Your task to perform on an android device: Open Wikipedia Image 0: 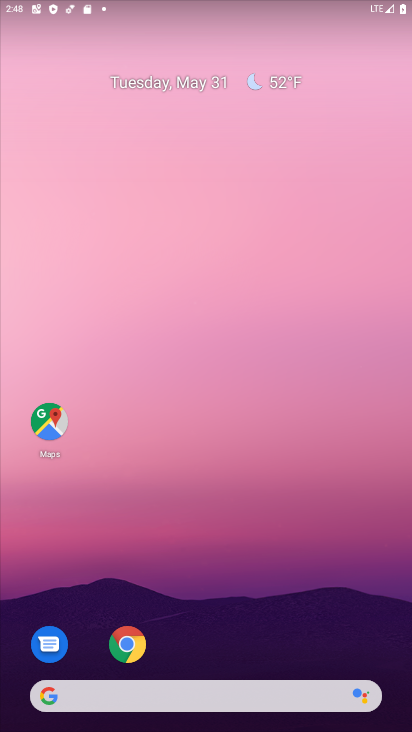
Step 0: click (232, 698)
Your task to perform on an android device: Open Wikipedia Image 1: 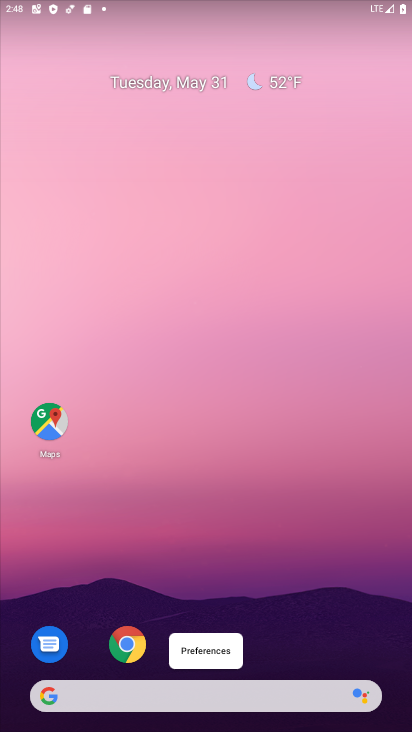
Step 1: click (290, 697)
Your task to perform on an android device: Open Wikipedia Image 2: 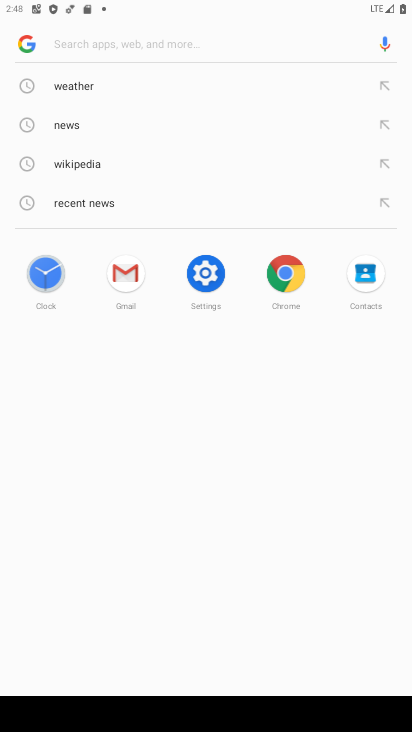
Step 2: click (88, 160)
Your task to perform on an android device: Open Wikipedia Image 3: 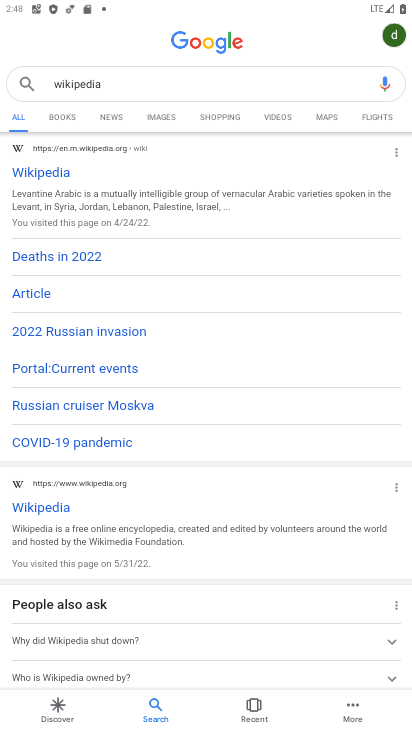
Step 3: click (50, 169)
Your task to perform on an android device: Open Wikipedia Image 4: 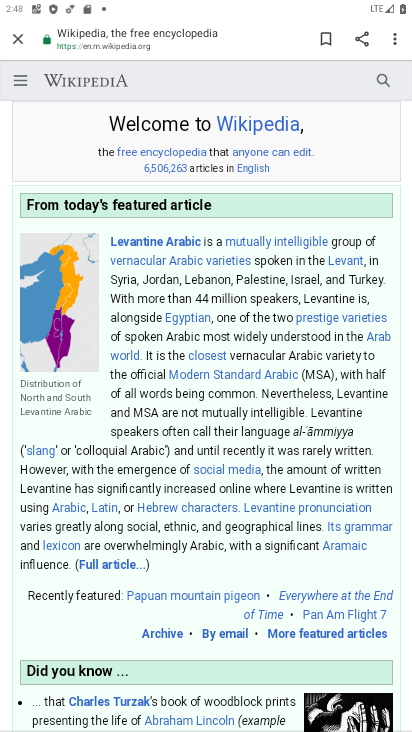
Step 4: task complete